Your task to perform on an android device: Play the last video I watched on Youtube Image 0: 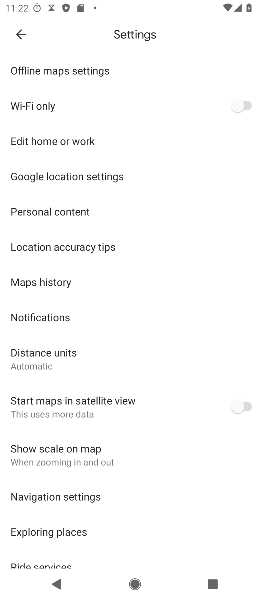
Step 0: press home button
Your task to perform on an android device: Play the last video I watched on Youtube Image 1: 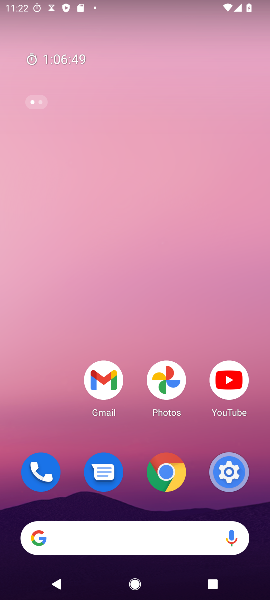
Step 1: click (240, 391)
Your task to perform on an android device: Play the last video I watched on Youtube Image 2: 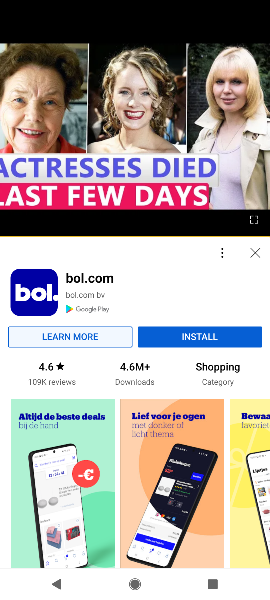
Step 2: task complete